Your task to perform on an android device: turn smart compose on in the gmail app Image 0: 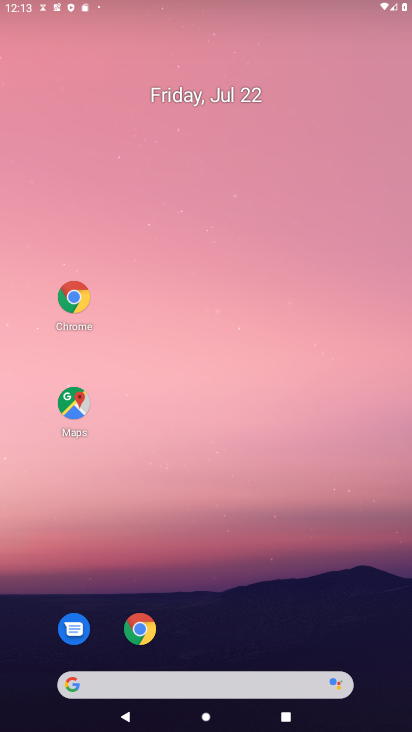
Step 0: drag from (242, 712) to (260, 284)
Your task to perform on an android device: turn smart compose on in the gmail app Image 1: 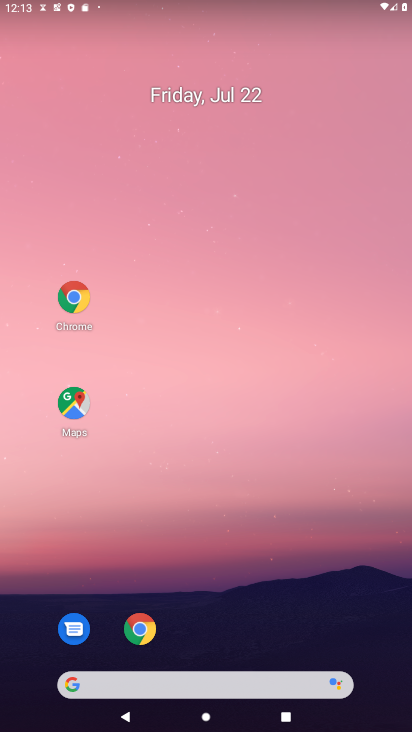
Step 1: drag from (190, 565) to (180, 122)
Your task to perform on an android device: turn smart compose on in the gmail app Image 2: 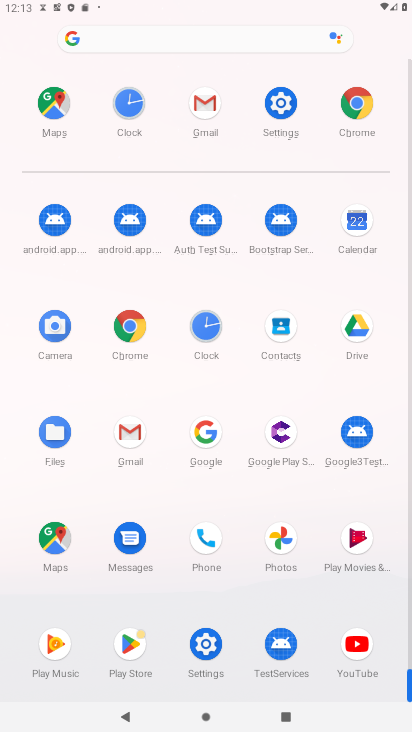
Step 2: click (143, 432)
Your task to perform on an android device: turn smart compose on in the gmail app Image 3: 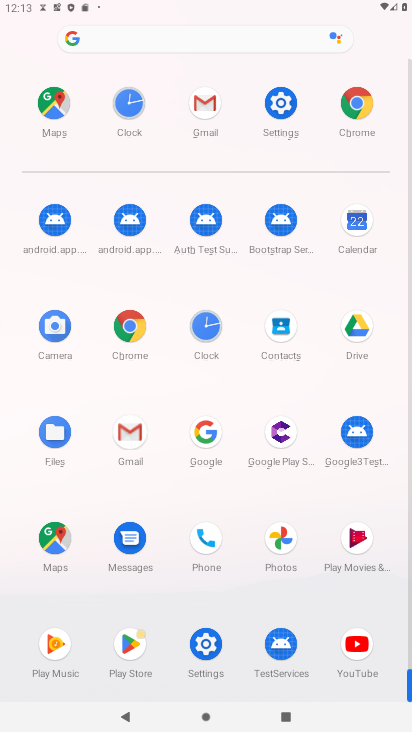
Step 3: click (138, 432)
Your task to perform on an android device: turn smart compose on in the gmail app Image 4: 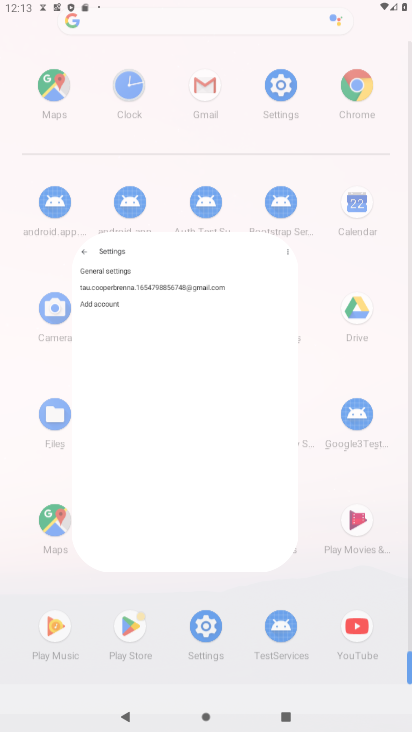
Step 4: click (138, 433)
Your task to perform on an android device: turn smart compose on in the gmail app Image 5: 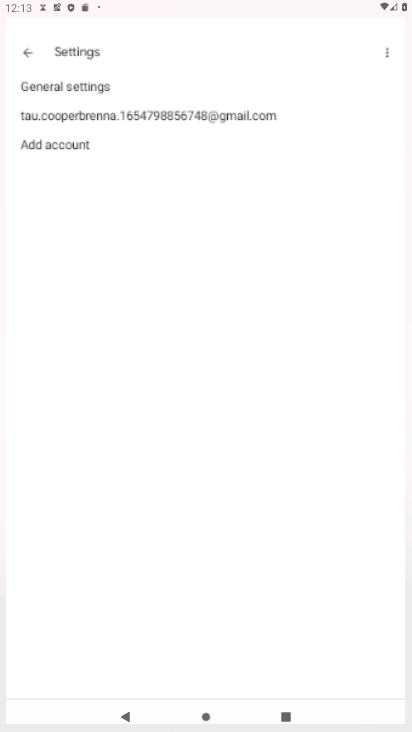
Step 5: click (138, 433)
Your task to perform on an android device: turn smart compose on in the gmail app Image 6: 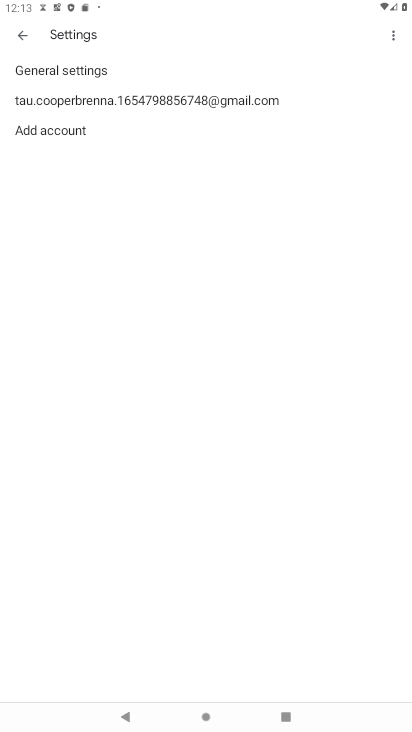
Step 6: click (85, 95)
Your task to perform on an android device: turn smart compose on in the gmail app Image 7: 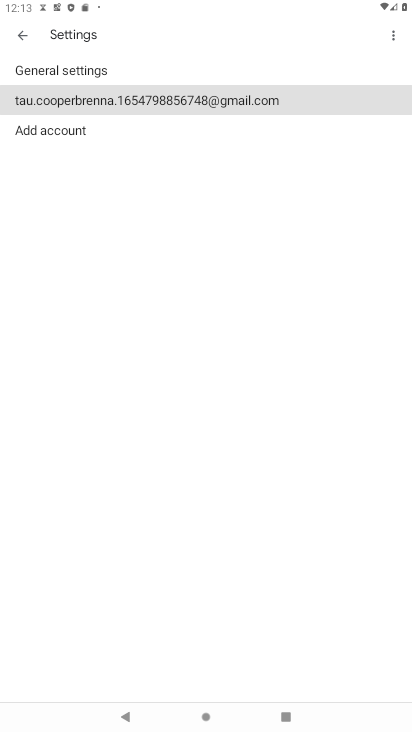
Step 7: click (85, 99)
Your task to perform on an android device: turn smart compose on in the gmail app Image 8: 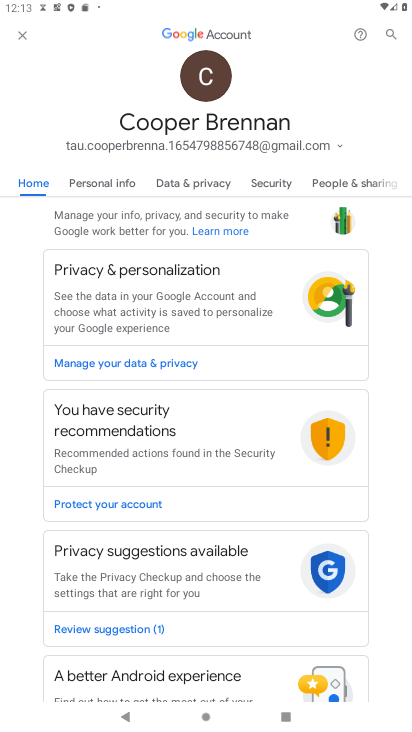
Step 8: click (29, 39)
Your task to perform on an android device: turn smart compose on in the gmail app Image 9: 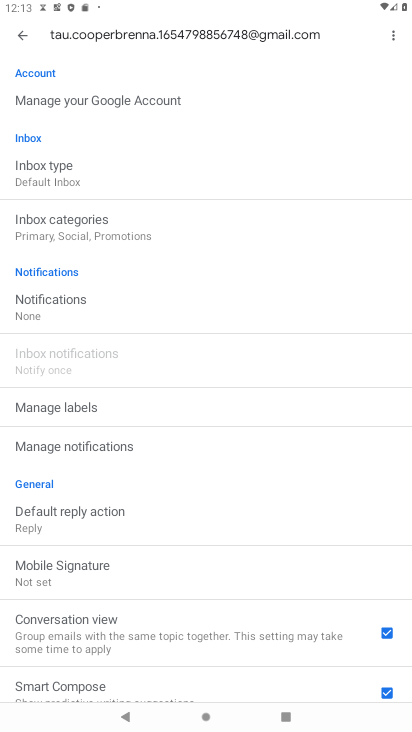
Step 9: task complete